Your task to perform on an android device: allow notifications from all sites in the chrome app Image 0: 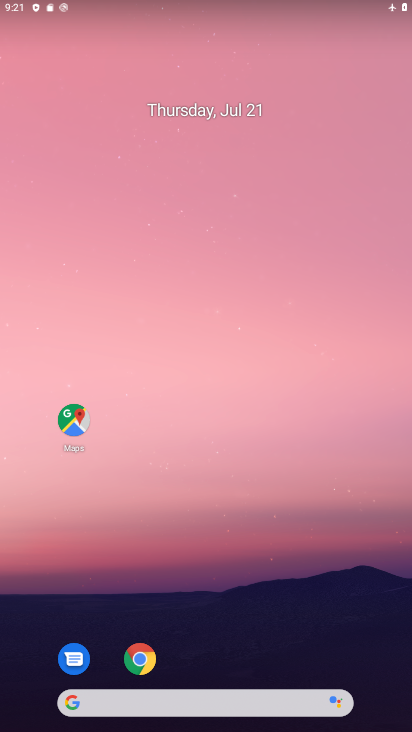
Step 0: drag from (263, 682) to (187, 47)
Your task to perform on an android device: allow notifications from all sites in the chrome app Image 1: 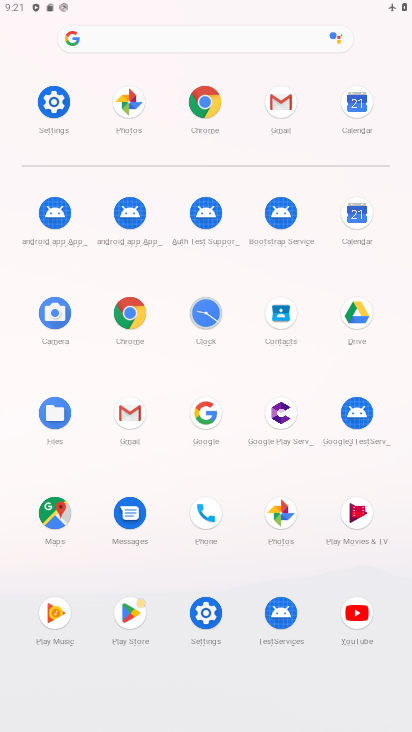
Step 1: click (142, 317)
Your task to perform on an android device: allow notifications from all sites in the chrome app Image 2: 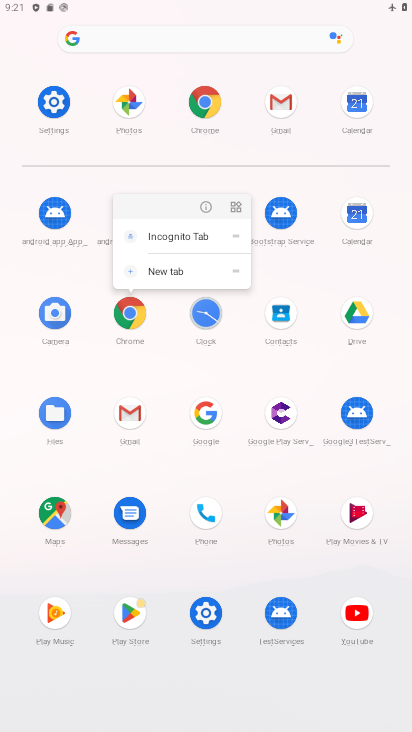
Step 2: click (131, 326)
Your task to perform on an android device: allow notifications from all sites in the chrome app Image 3: 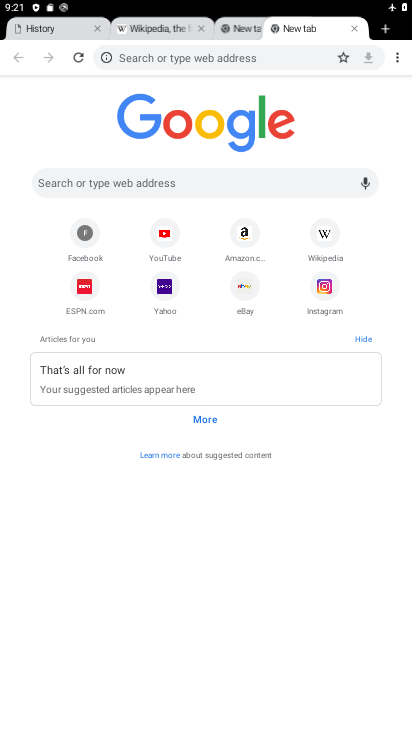
Step 3: drag from (392, 58) to (283, 262)
Your task to perform on an android device: allow notifications from all sites in the chrome app Image 4: 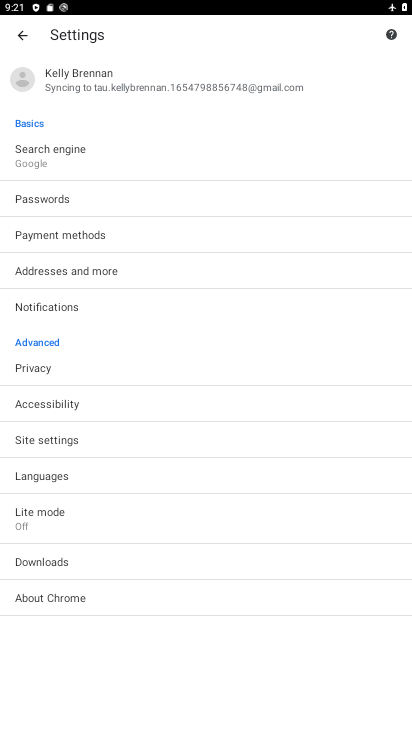
Step 4: click (45, 440)
Your task to perform on an android device: allow notifications from all sites in the chrome app Image 5: 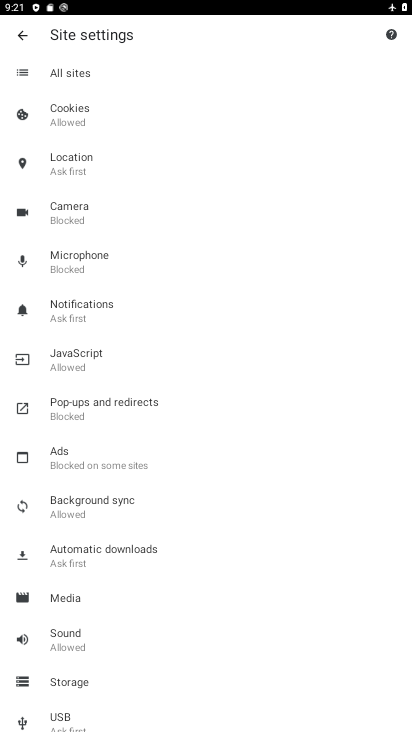
Step 5: click (81, 300)
Your task to perform on an android device: allow notifications from all sites in the chrome app Image 6: 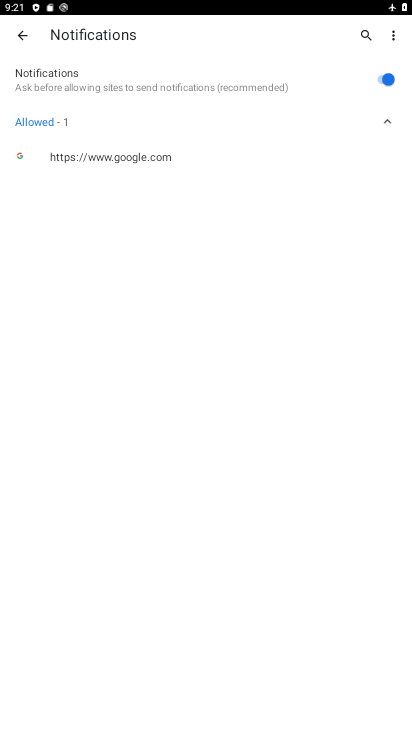
Step 6: task complete